Your task to perform on an android device: Open calendar and show me the first week of next month Image 0: 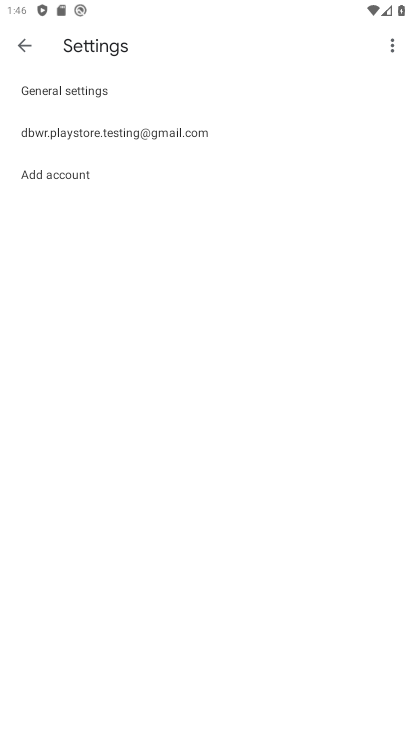
Step 0: press home button
Your task to perform on an android device: Open calendar and show me the first week of next month Image 1: 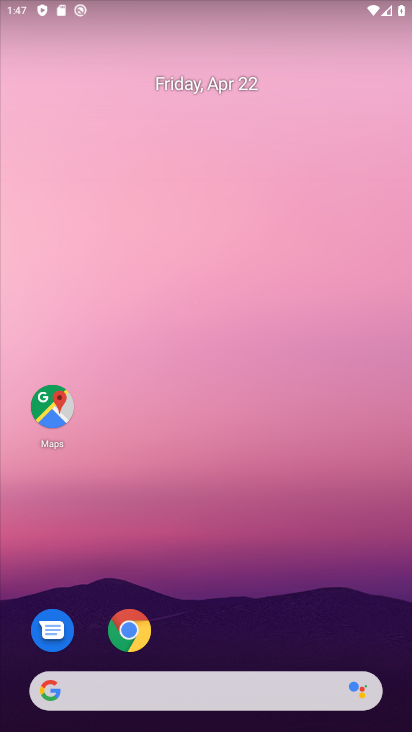
Step 1: drag from (196, 642) to (245, 142)
Your task to perform on an android device: Open calendar and show me the first week of next month Image 2: 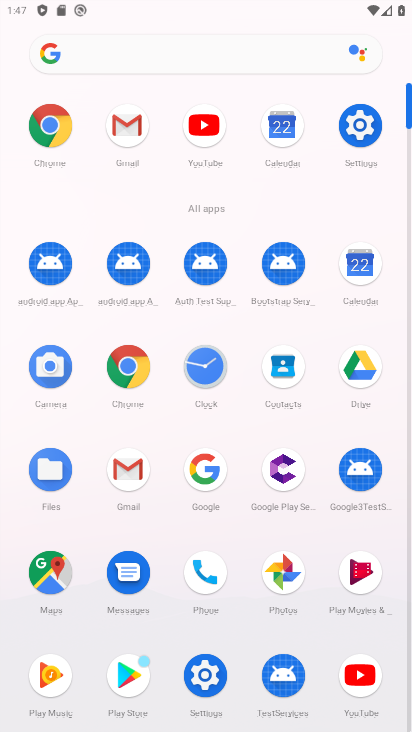
Step 2: click (352, 269)
Your task to perform on an android device: Open calendar and show me the first week of next month Image 3: 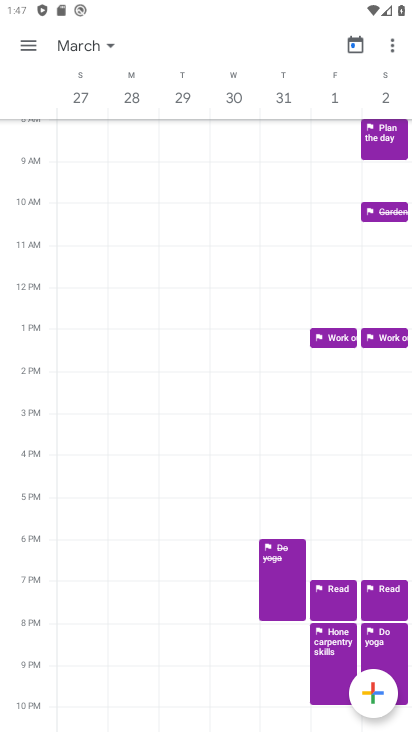
Step 3: click (97, 46)
Your task to perform on an android device: Open calendar and show me the first week of next month Image 4: 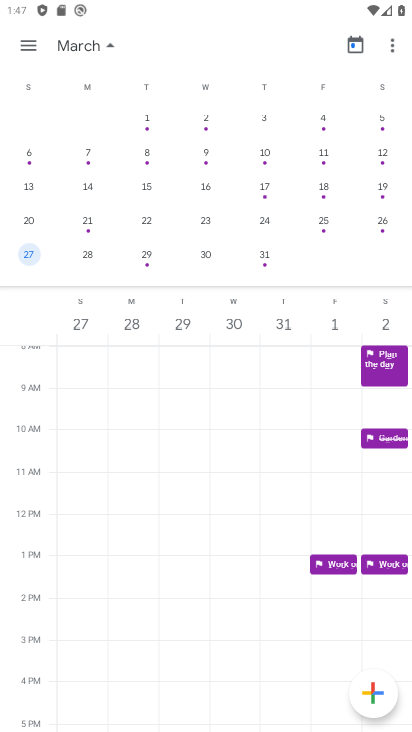
Step 4: task complete